Your task to perform on an android device: toggle pop-ups in chrome Image 0: 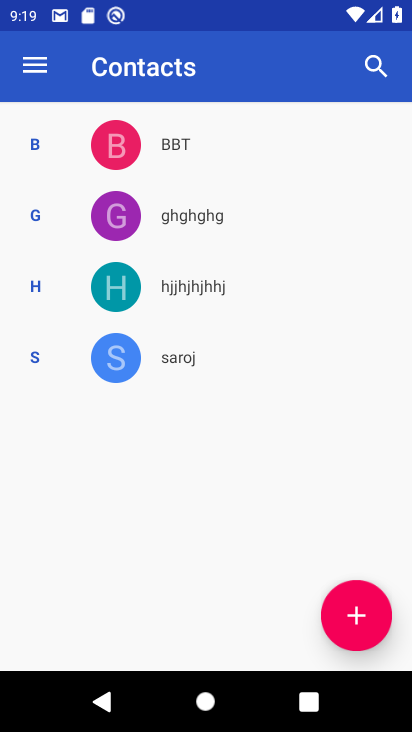
Step 0: press home button
Your task to perform on an android device: toggle pop-ups in chrome Image 1: 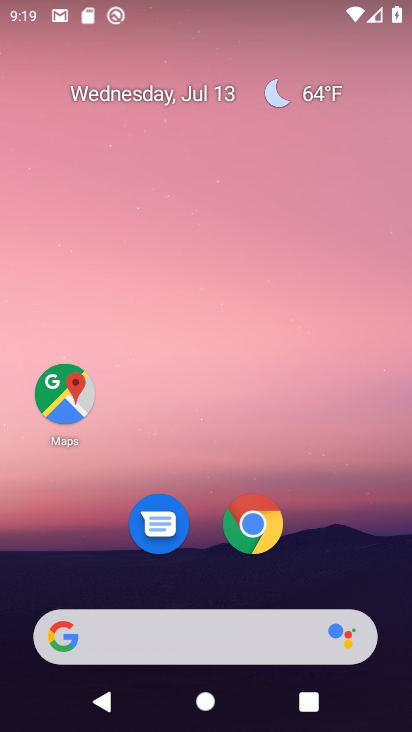
Step 1: click (237, 511)
Your task to perform on an android device: toggle pop-ups in chrome Image 2: 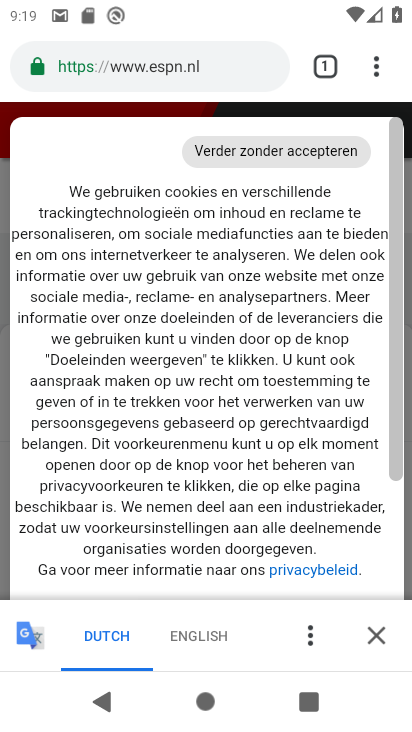
Step 2: drag from (373, 61) to (223, 558)
Your task to perform on an android device: toggle pop-ups in chrome Image 3: 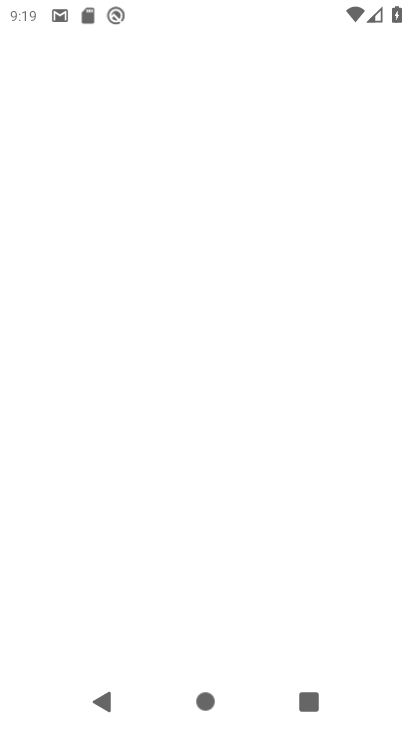
Step 3: drag from (373, 60) to (298, 389)
Your task to perform on an android device: toggle pop-ups in chrome Image 4: 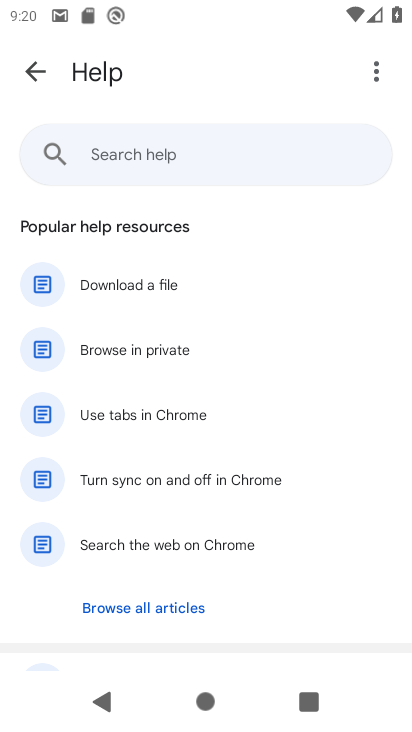
Step 4: press back button
Your task to perform on an android device: toggle pop-ups in chrome Image 5: 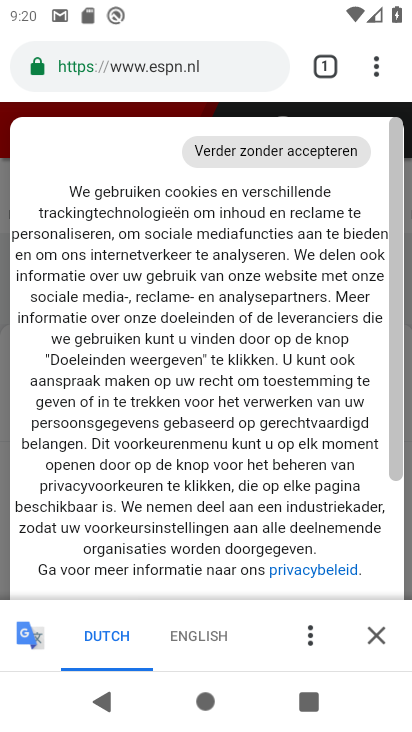
Step 5: drag from (379, 69) to (138, 524)
Your task to perform on an android device: toggle pop-ups in chrome Image 6: 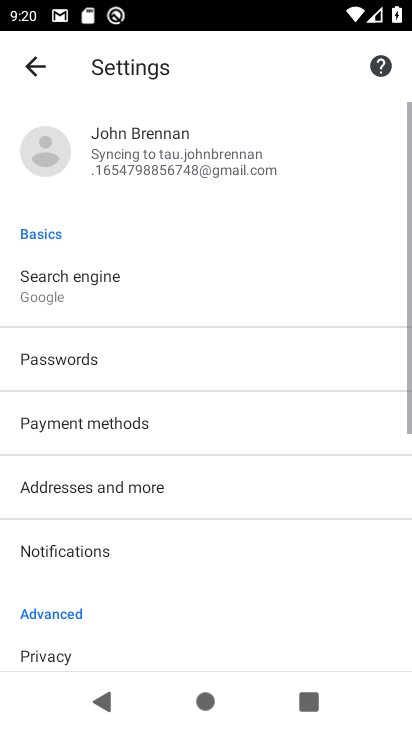
Step 6: drag from (137, 522) to (103, 122)
Your task to perform on an android device: toggle pop-ups in chrome Image 7: 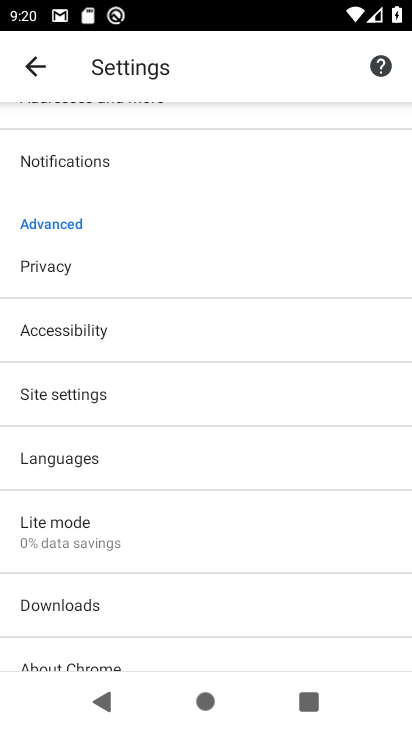
Step 7: click (76, 401)
Your task to perform on an android device: toggle pop-ups in chrome Image 8: 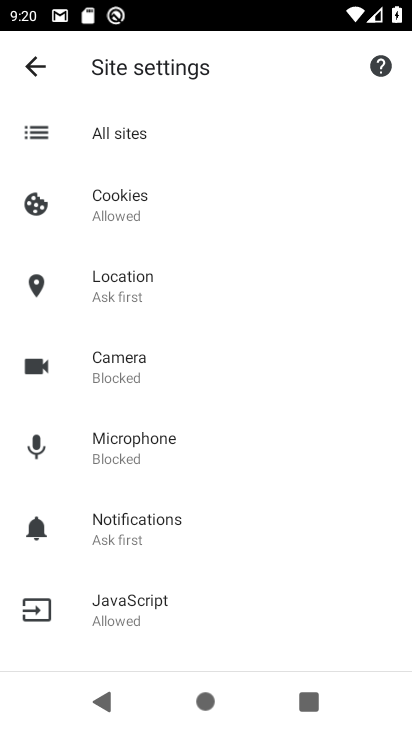
Step 8: drag from (146, 539) to (156, 346)
Your task to perform on an android device: toggle pop-ups in chrome Image 9: 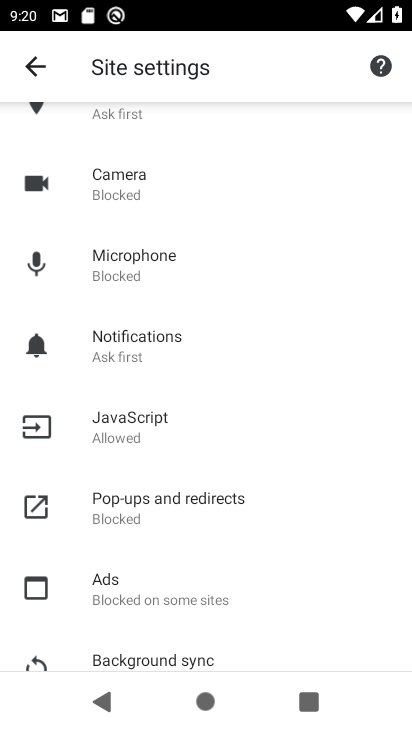
Step 9: click (156, 494)
Your task to perform on an android device: toggle pop-ups in chrome Image 10: 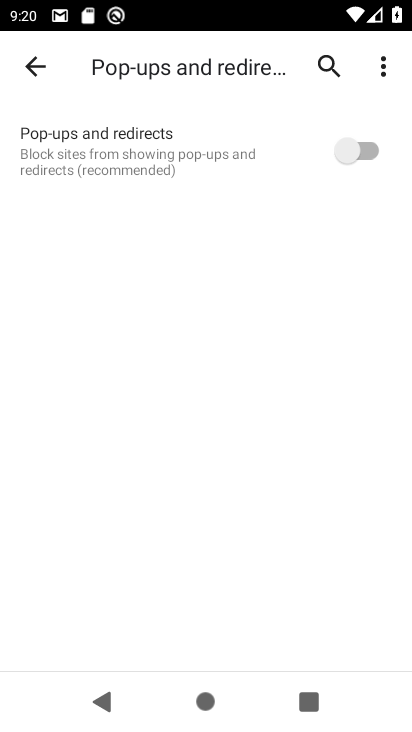
Step 10: click (357, 154)
Your task to perform on an android device: toggle pop-ups in chrome Image 11: 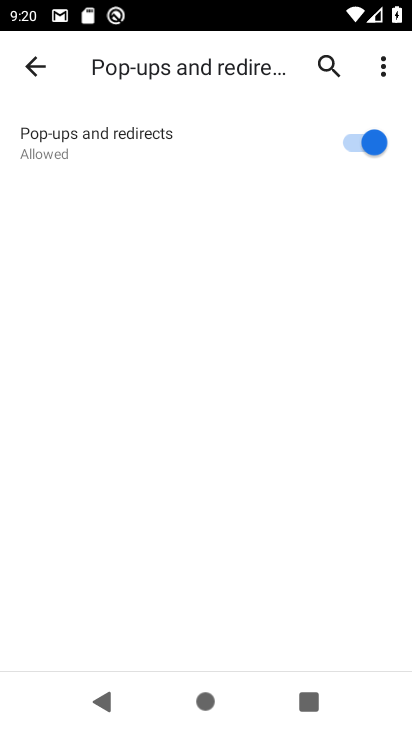
Step 11: task complete